Your task to perform on an android device: Go to location settings Image 0: 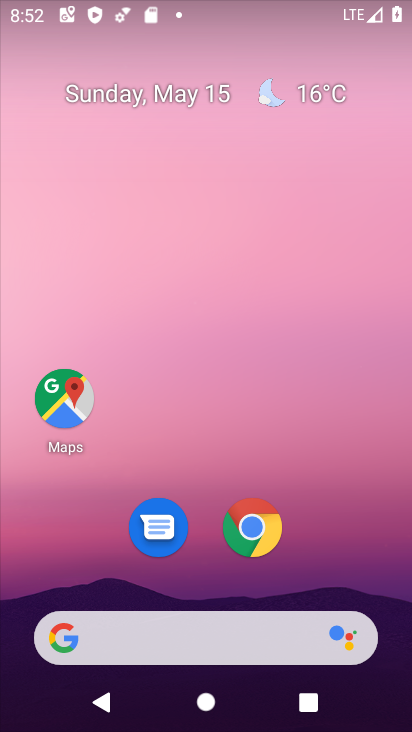
Step 0: drag from (332, 579) to (279, 4)
Your task to perform on an android device: Go to location settings Image 1: 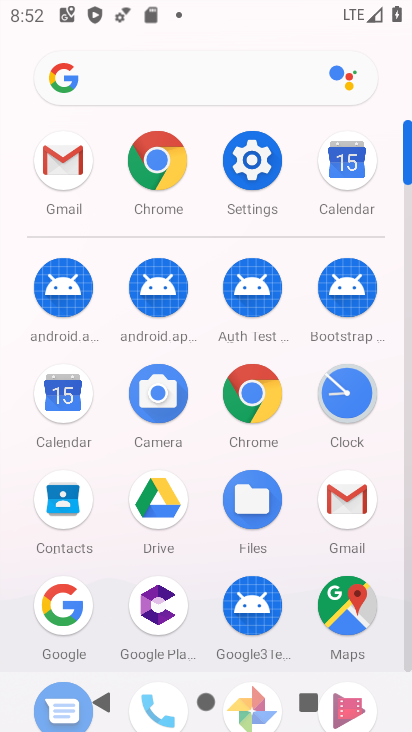
Step 1: click (245, 139)
Your task to perform on an android device: Go to location settings Image 2: 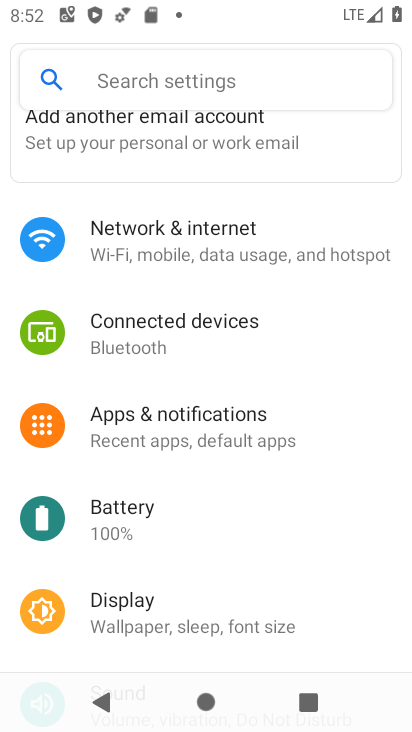
Step 2: drag from (341, 557) to (327, 55)
Your task to perform on an android device: Go to location settings Image 3: 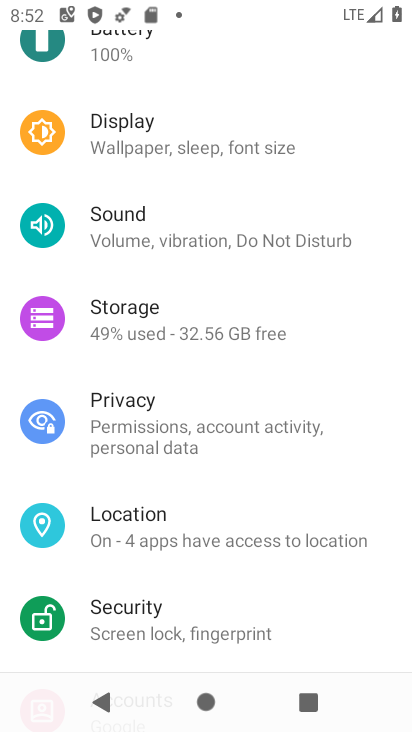
Step 3: click (167, 540)
Your task to perform on an android device: Go to location settings Image 4: 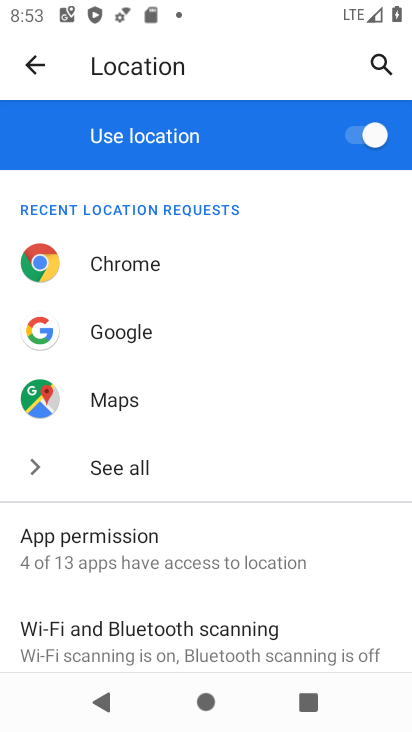
Step 4: task complete